Your task to perform on an android device: Do I have any events tomorrow? Image 0: 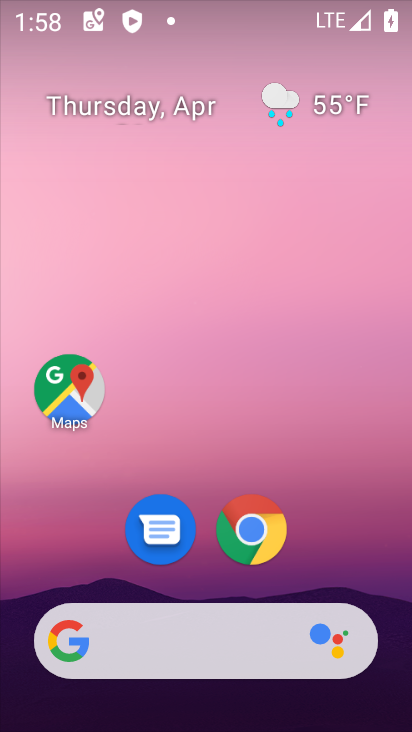
Step 0: drag from (38, 639) to (294, 162)
Your task to perform on an android device: Do I have any events tomorrow? Image 1: 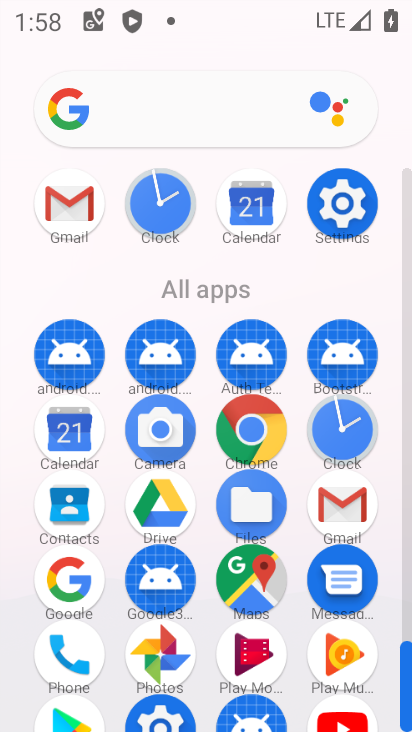
Step 1: click (68, 451)
Your task to perform on an android device: Do I have any events tomorrow? Image 2: 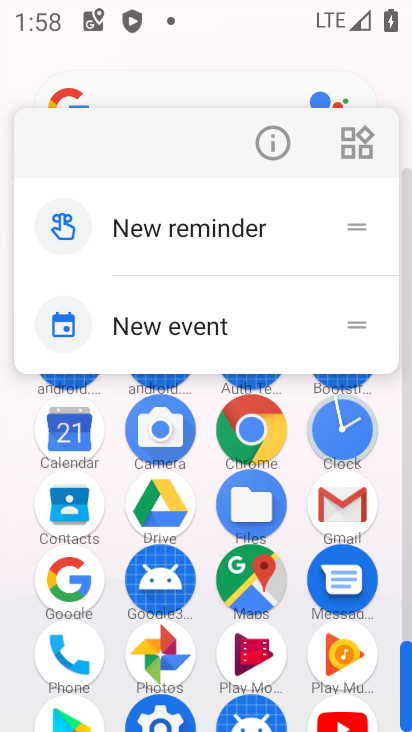
Step 2: click (71, 437)
Your task to perform on an android device: Do I have any events tomorrow? Image 3: 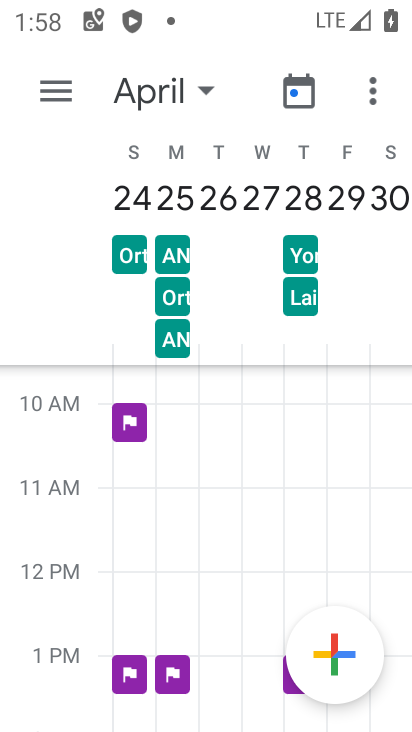
Step 3: click (182, 84)
Your task to perform on an android device: Do I have any events tomorrow? Image 4: 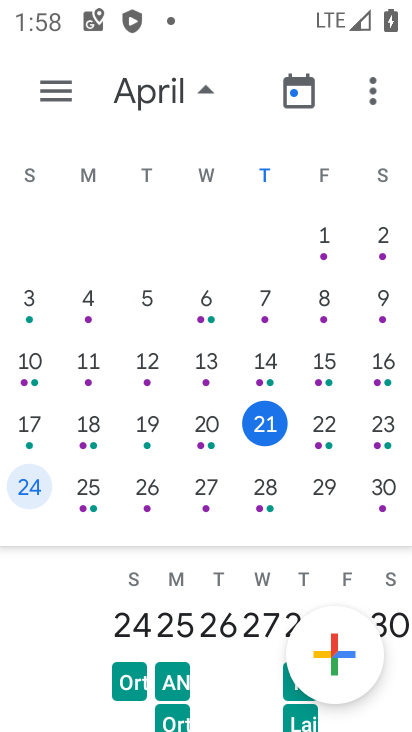
Step 4: click (320, 425)
Your task to perform on an android device: Do I have any events tomorrow? Image 5: 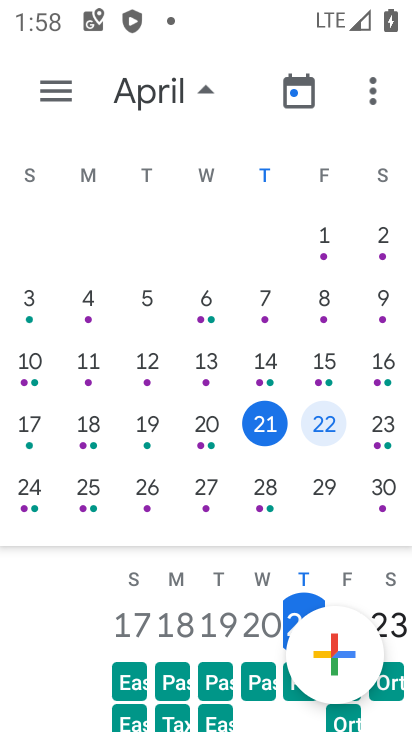
Step 5: click (320, 423)
Your task to perform on an android device: Do I have any events tomorrow? Image 6: 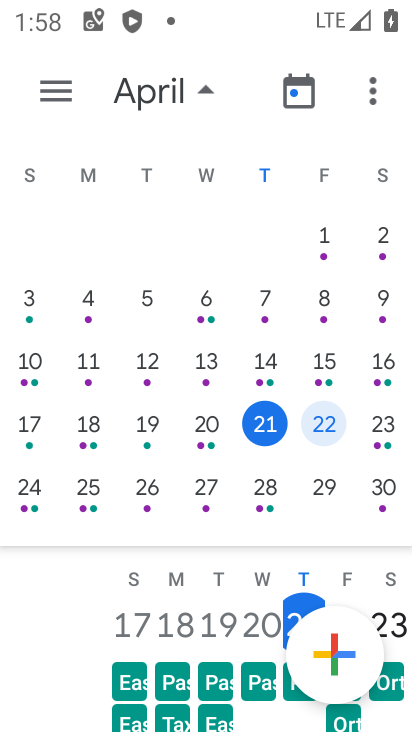
Step 6: click (322, 418)
Your task to perform on an android device: Do I have any events tomorrow? Image 7: 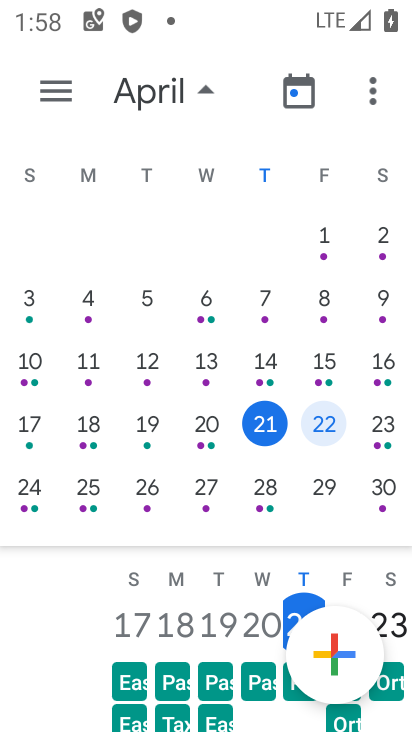
Step 7: task complete